Your task to perform on an android device: set the timer Image 0: 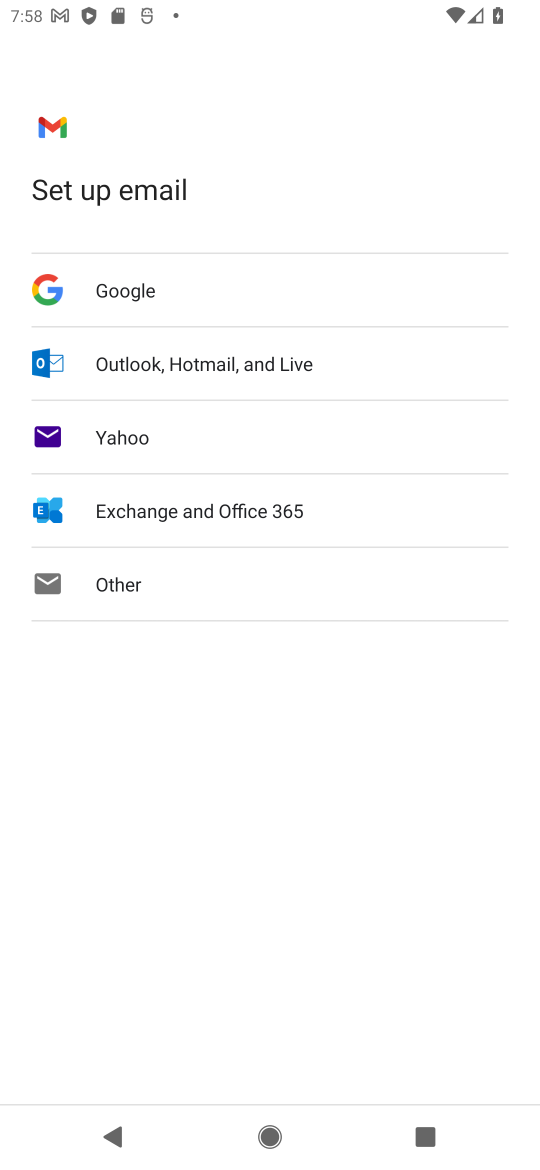
Step 0: press home button
Your task to perform on an android device: set the timer Image 1: 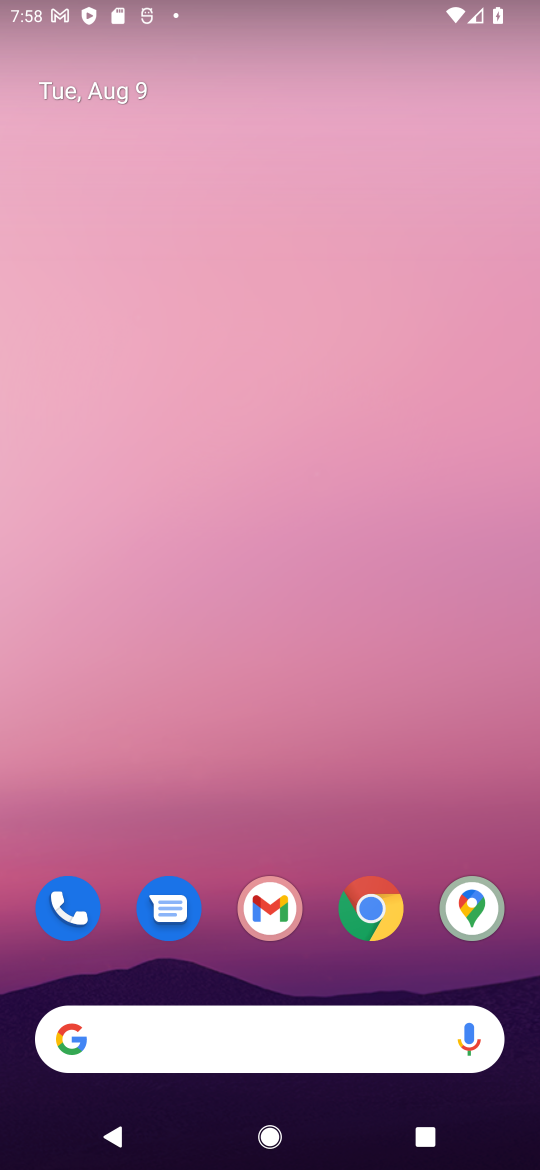
Step 1: drag from (307, 983) to (266, 189)
Your task to perform on an android device: set the timer Image 2: 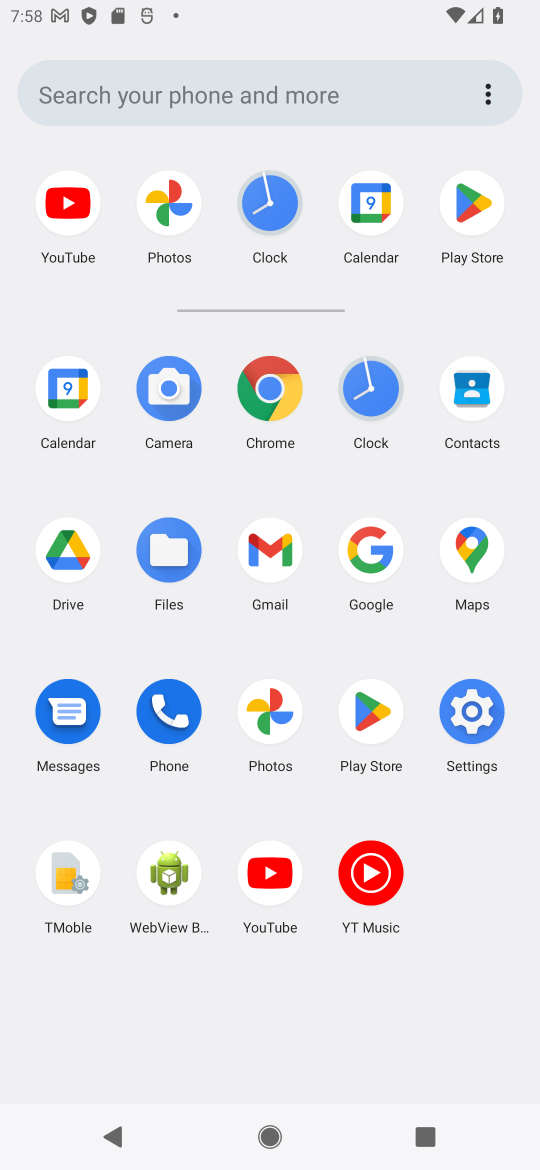
Step 2: click (370, 393)
Your task to perform on an android device: set the timer Image 3: 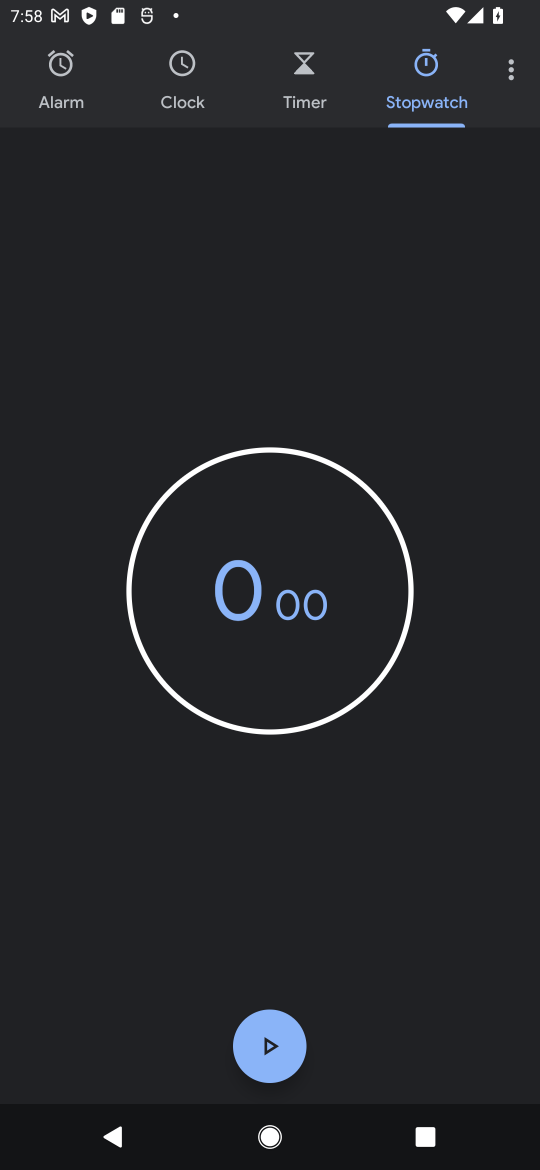
Step 3: click (297, 87)
Your task to perform on an android device: set the timer Image 4: 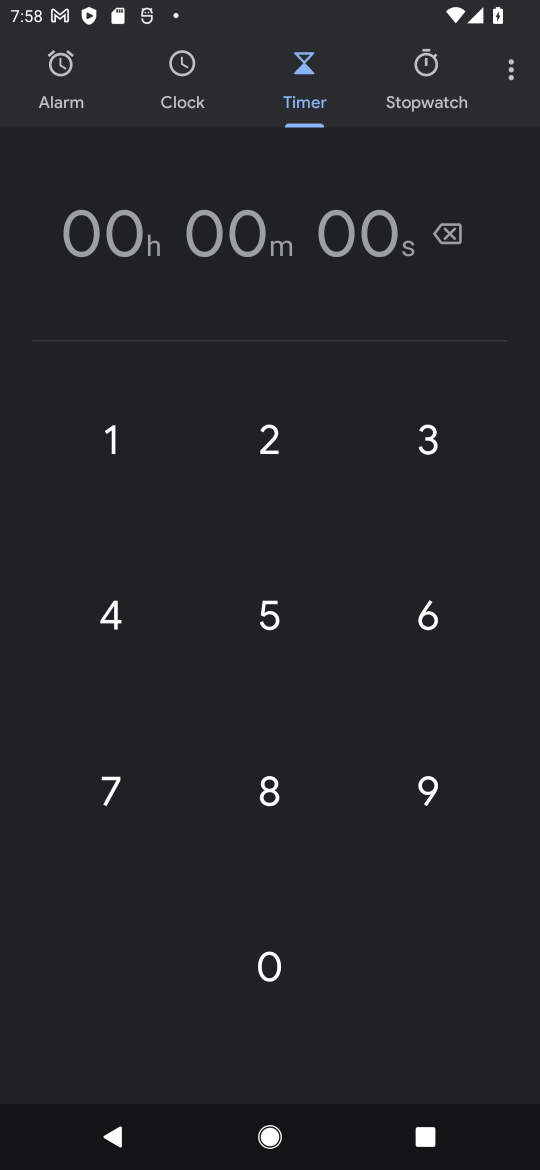
Step 4: drag from (258, 444) to (278, 597)
Your task to perform on an android device: set the timer Image 5: 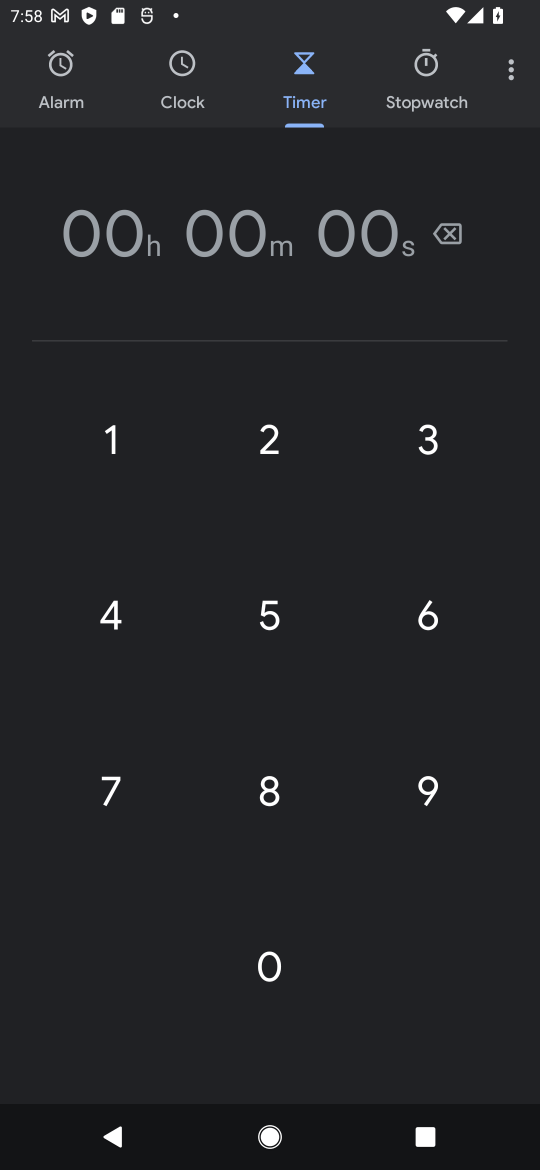
Step 5: click (253, 743)
Your task to perform on an android device: set the timer Image 6: 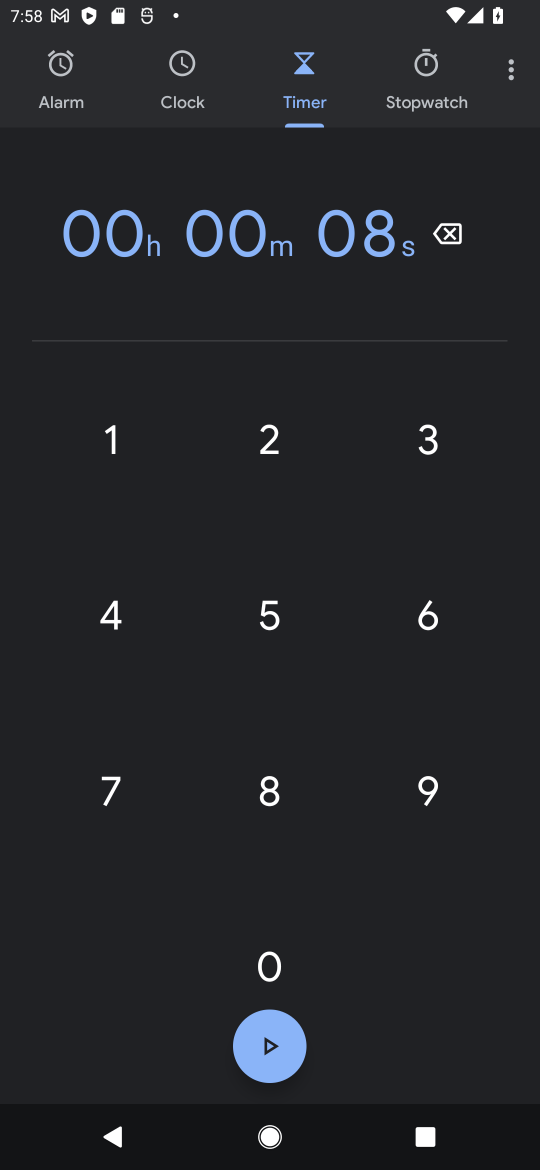
Step 6: click (260, 1046)
Your task to perform on an android device: set the timer Image 7: 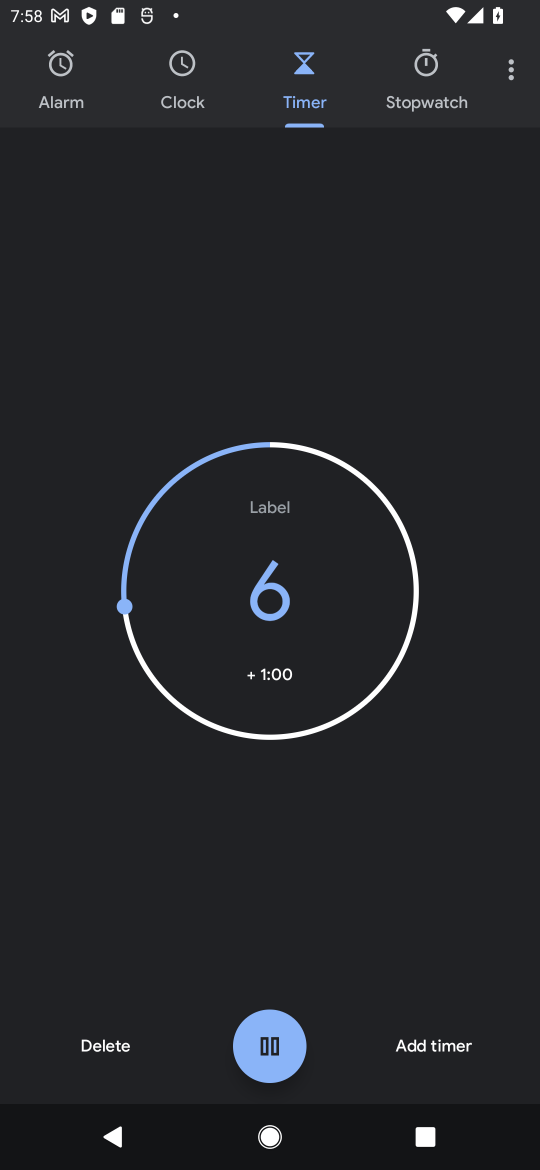
Step 7: task complete